Your task to perform on an android device: Open accessibility settings Image 0: 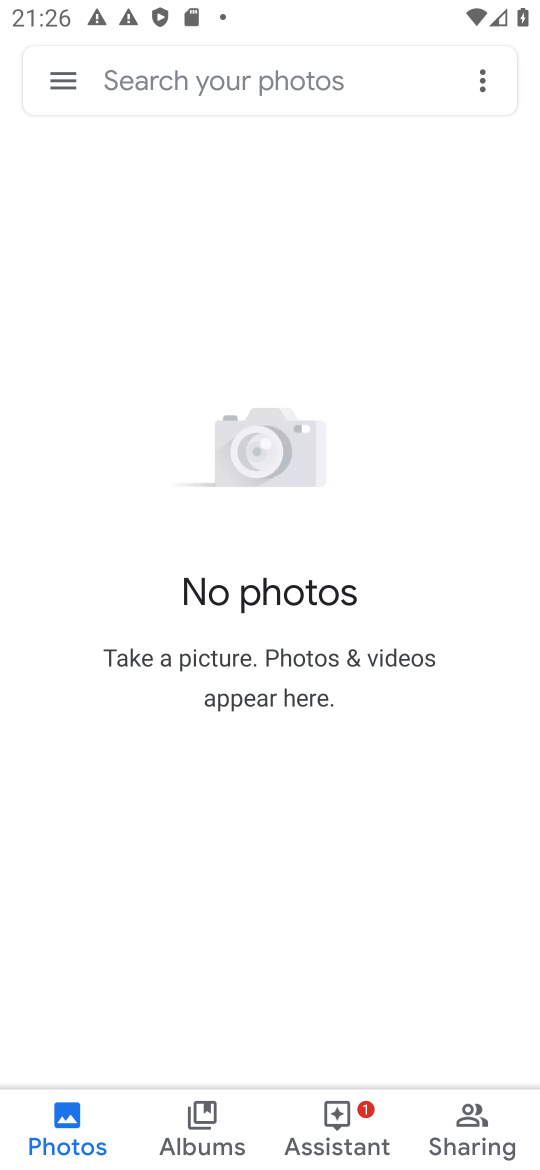
Step 0: press home button
Your task to perform on an android device: Open accessibility settings Image 1: 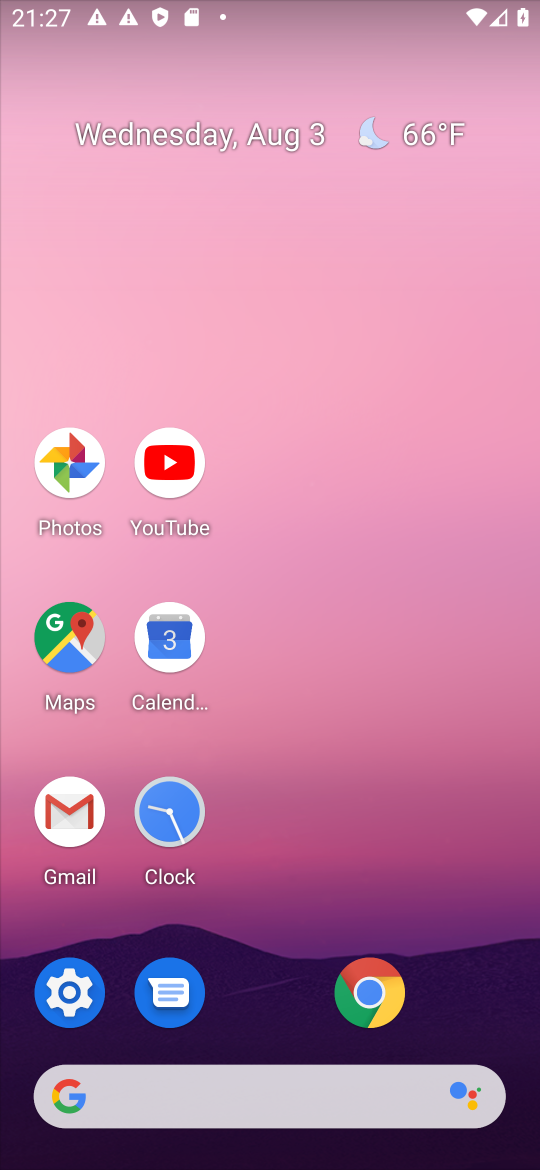
Step 1: click (81, 1009)
Your task to perform on an android device: Open accessibility settings Image 2: 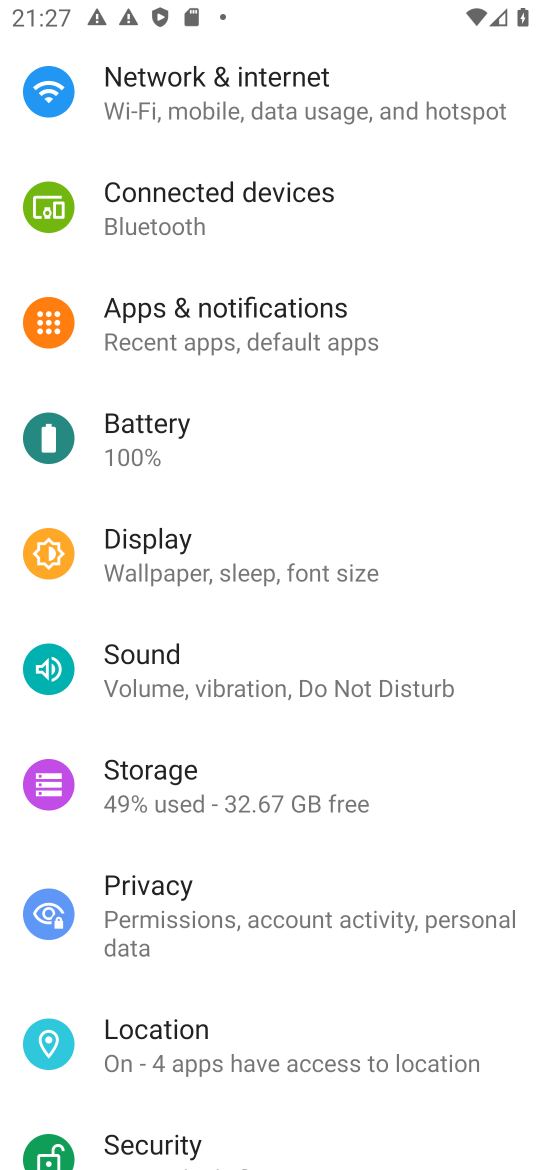
Step 2: drag from (349, 1008) to (328, 388)
Your task to perform on an android device: Open accessibility settings Image 3: 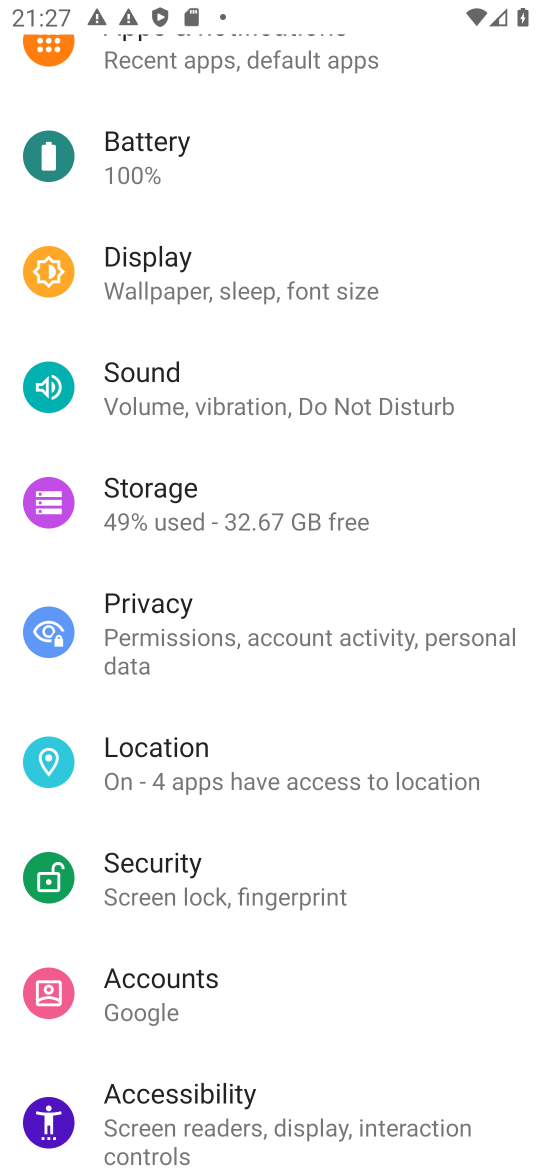
Step 3: click (191, 1099)
Your task to perform on an android device: Open accessibility settings Image 4: 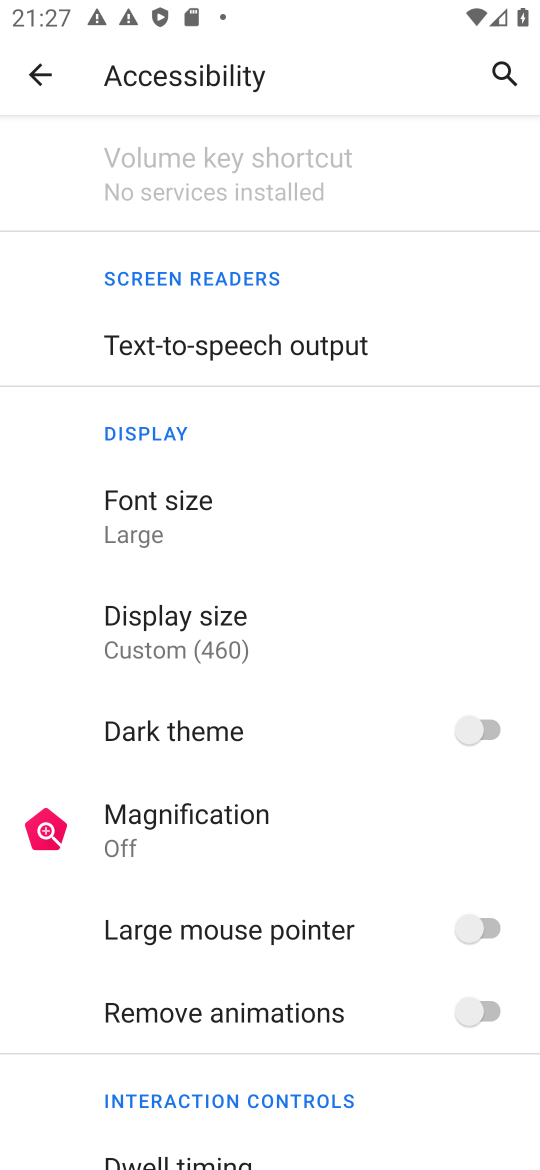
Step 4: task complete